Your task to perform on an android device: Go to privacy settings Image 0: 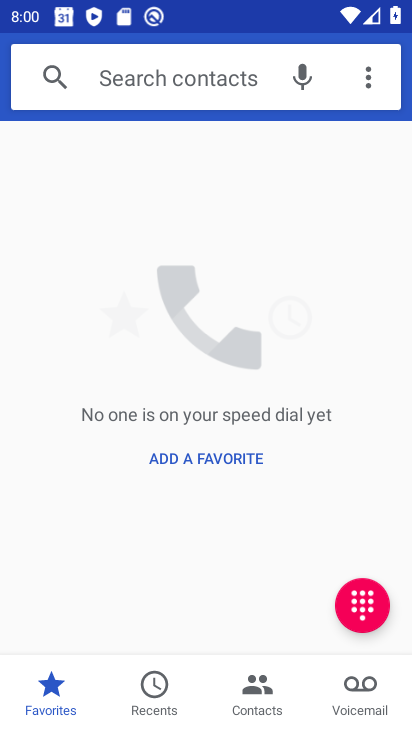
Step 0: press home button
Your task to perform on an android device: Go to privacy settings Image 1: 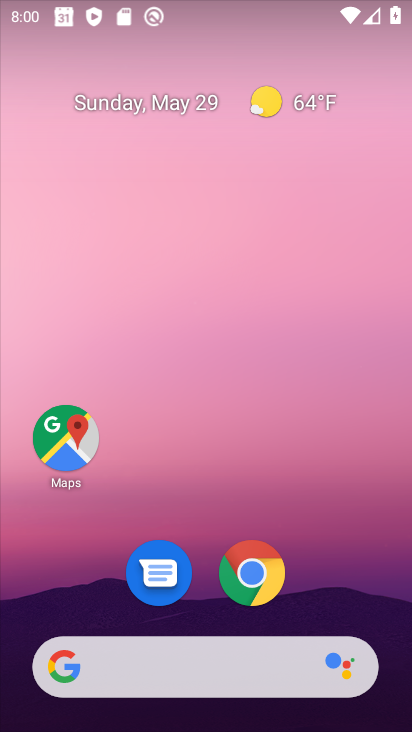
Step 1: click (286, 569)
Your task to perform on an android device: Go to privacy settings Image 2: 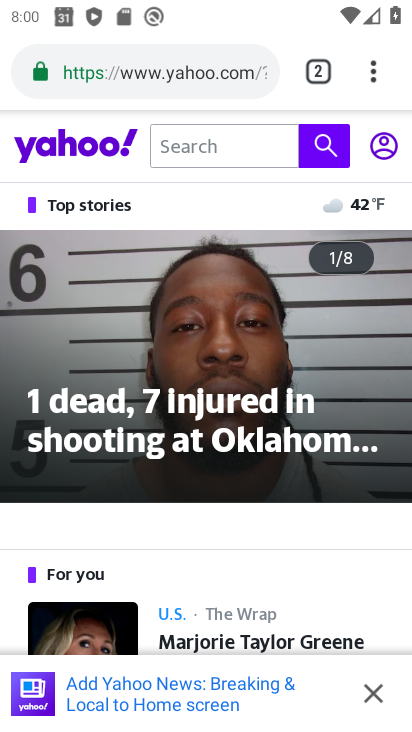
Step 2: drag from (389, 72) to (231, 555)
Your task to perform on an android device: Go to privacy settings Image 3: 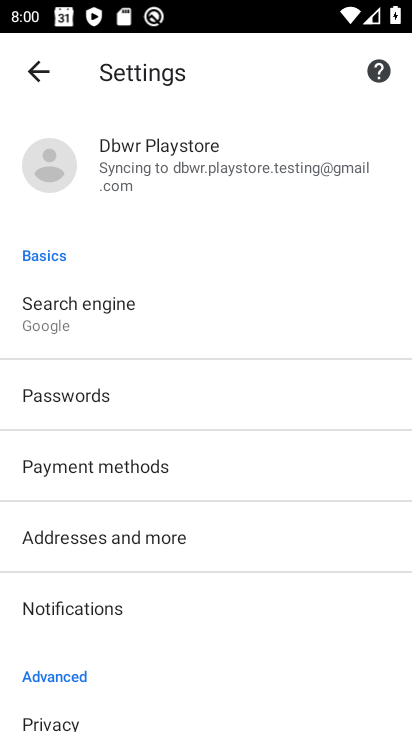
Step 3: drag from (198, 627) to (299, 320)
Your task to perform on an android device: Go to privacy settings Image 4: 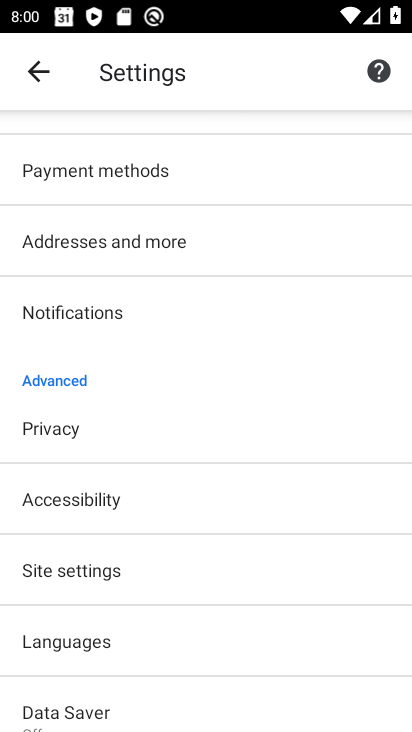
Step 4: click (160, 441)
Your task to perform on an android device: Go to privacy settings Image 5: 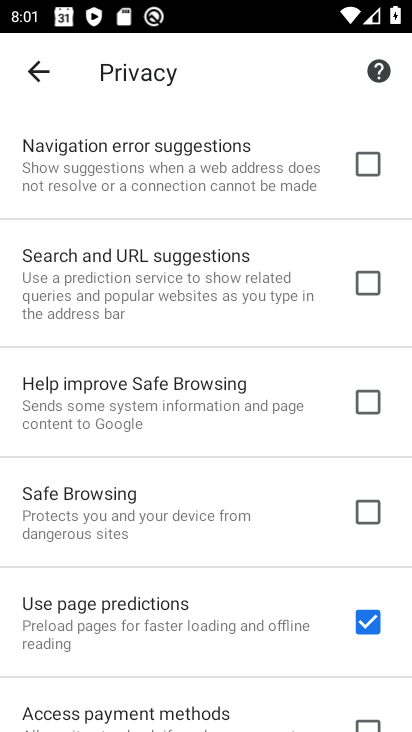
Step 5: task complete